Your task to perform on an android device: Search for seafood restaurants on Google Maps Image 0: 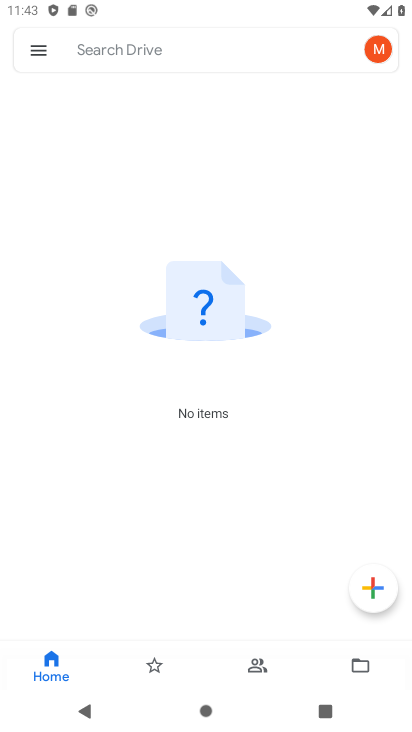
Step 0: press home button
Your task to perform on an android device: Search for seafood restaurants on Google Maps Image 1: 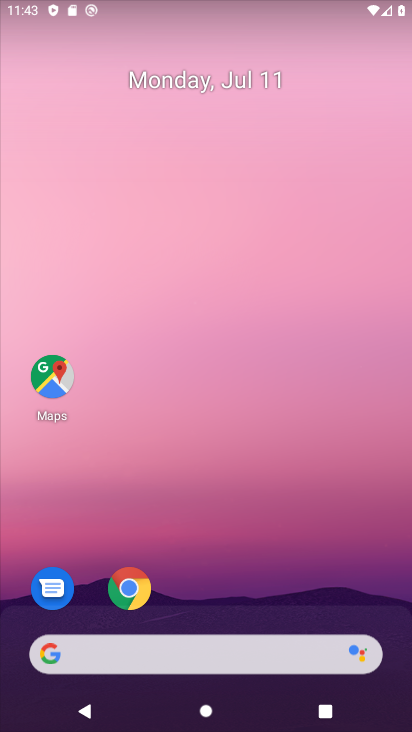
Step 1: drag from (215, 576) to (287, 119)
Your task to perform on an android device: Search for seafood restaurants on Google Maps Image 2: 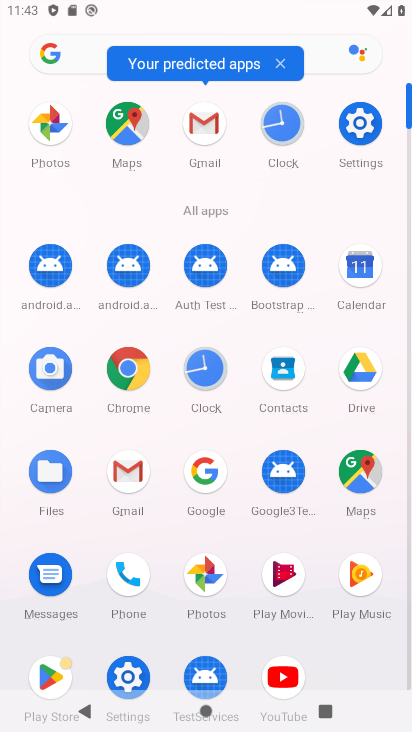
Step 2: click (345, 468)
Your task to perform on an android device: Search for seafood restaurants on Google Maps Image 3: 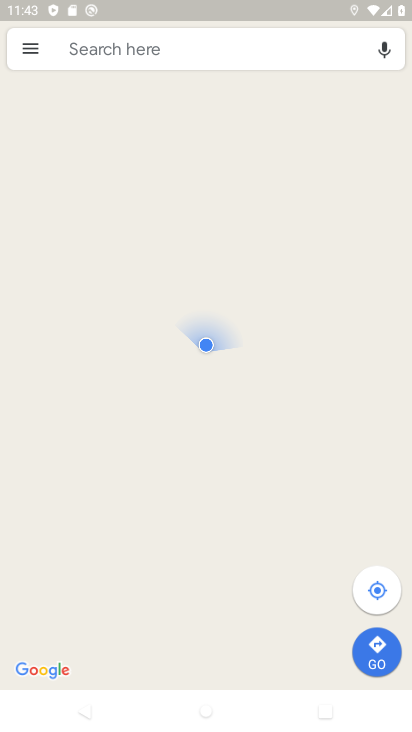
Step 3: click (144, 51)
Your task to perform on an android device: Search for seafood restaurants on Google Maps Image 4: 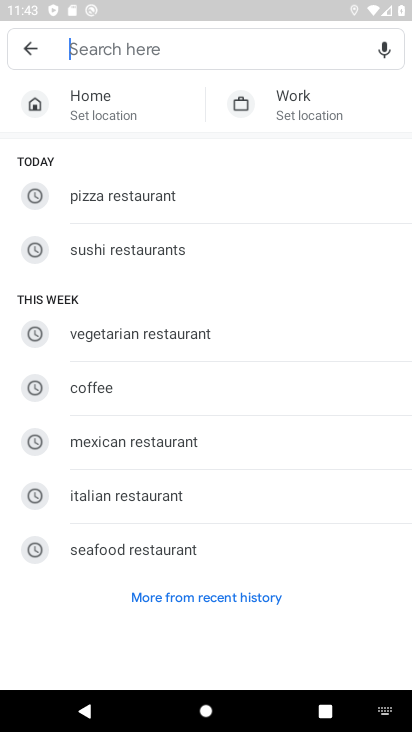
Step 4: type "seafood restaurants"
Your task to perform on an android device: Search for seafood restaurants on Google Maps Image 5: 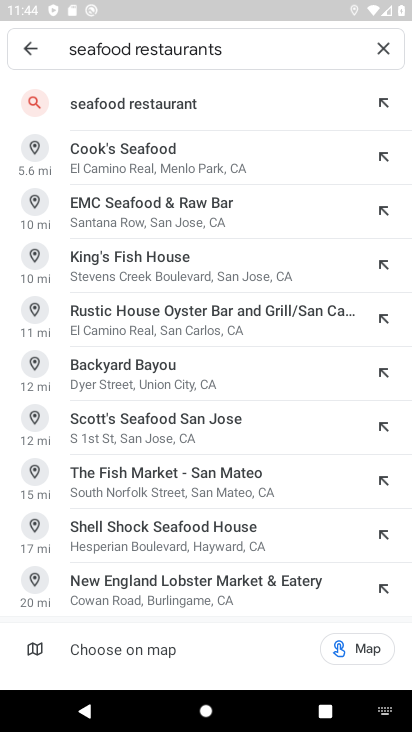
Step 5: click (148, 112)
Your task to perform on an android device: Search for seafood restaurants on Google Maps Image 6: 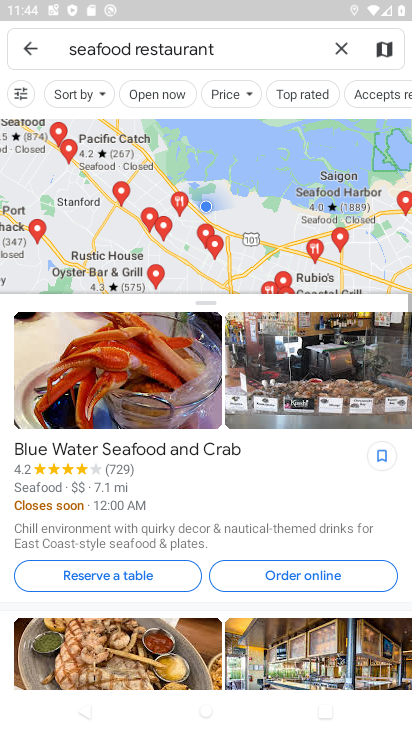
Step 6: task complete